Your task to perform on an android device: Show me recent news Image 0: 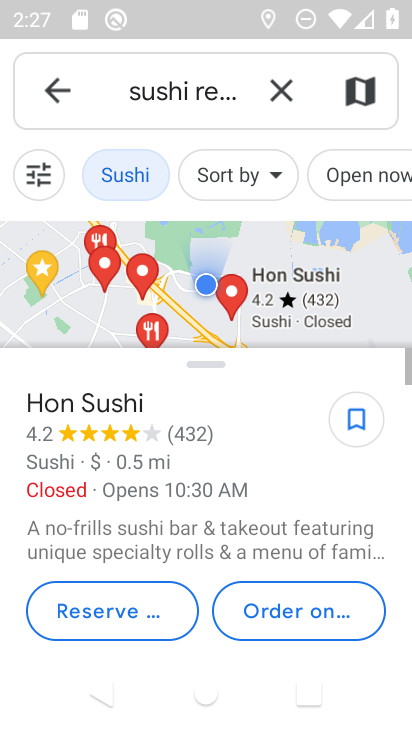
Step 0: press home button
Your task to perform on an android device: Show me recent news Image 1: 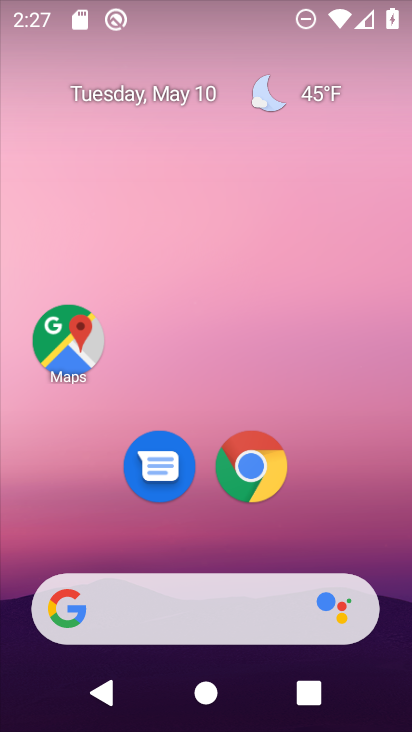
Step 1: drag from (296, 507) to (296, 63)
Your task to perform on an android device: Show me recent news Image 2: 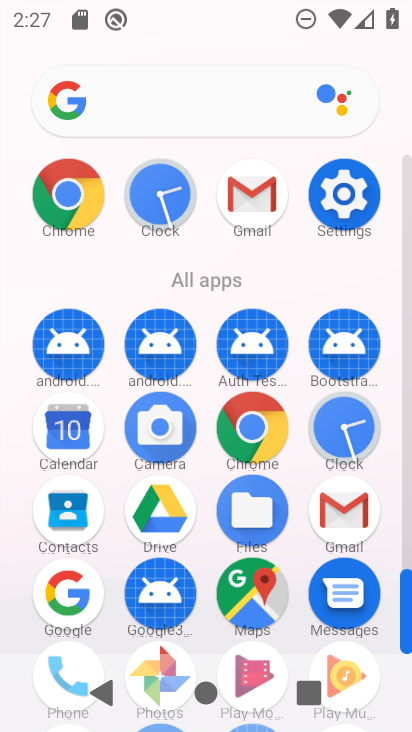
Step 2: click (209, 107)
Your task to perform on an android device: Show me recent news Image 3: 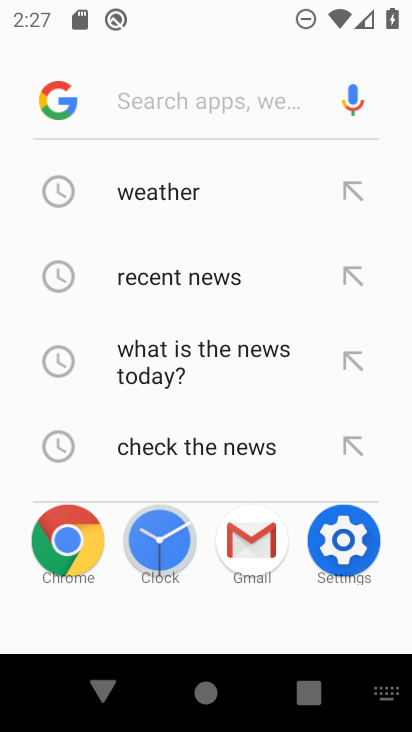
Step 3: type "recent news"
Your task to perform on an android device: Show me recent news Image 4: 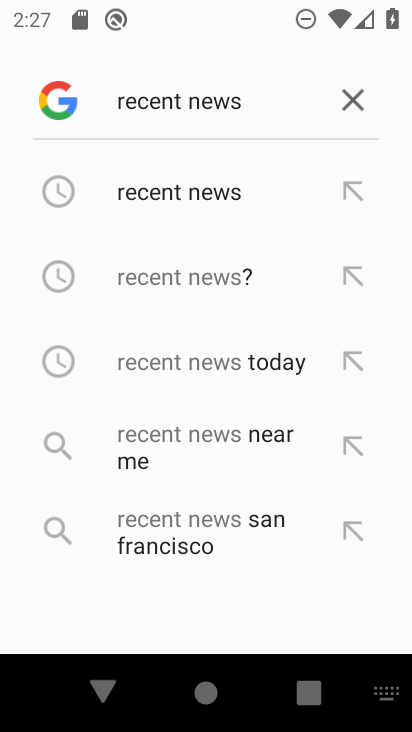
Step 4: click (176, 189)
Your task to perform on an android device: Show me recent news Image 5: 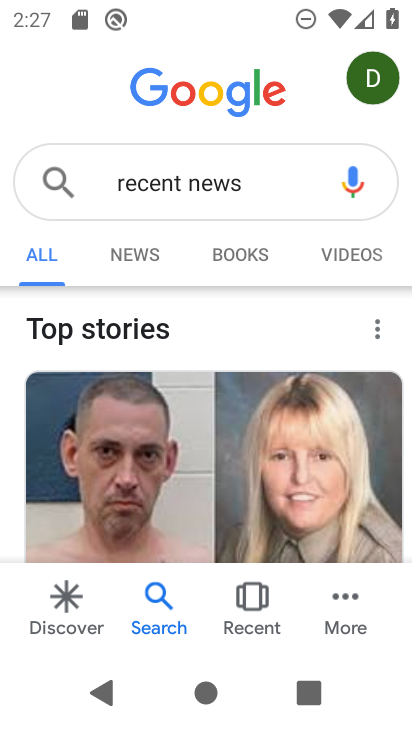
Step 5: click (156, 263)
Your task to perform on an android device: Show me recent news Image 6: 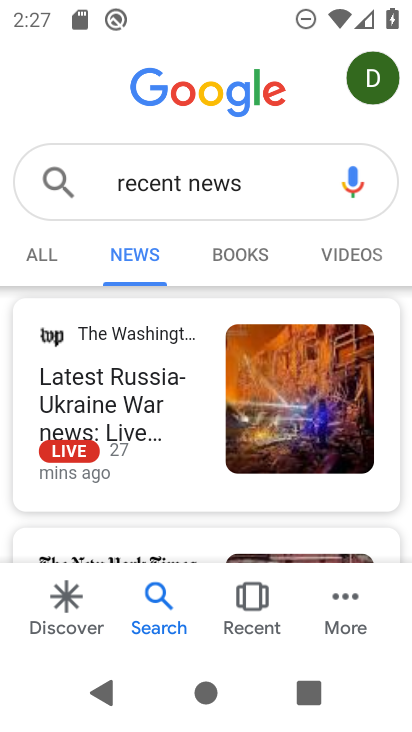
Step 6: task complete